Your task to perform on an android device: set the timer Image 0: 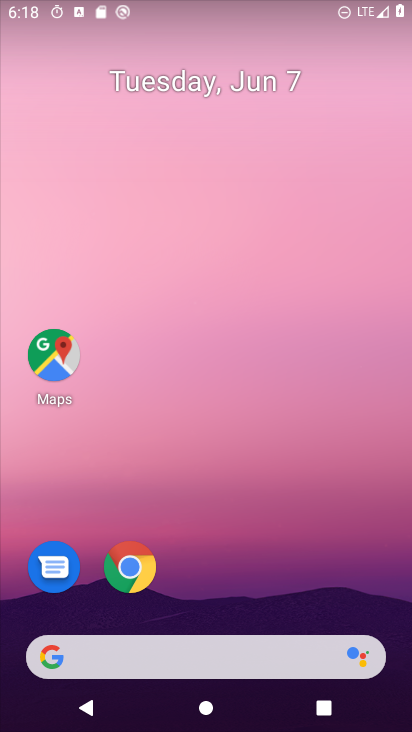
Step 0: drag from (296, 669) to (287, 14)
Your task to perform on an android device: set the timer Image 1: 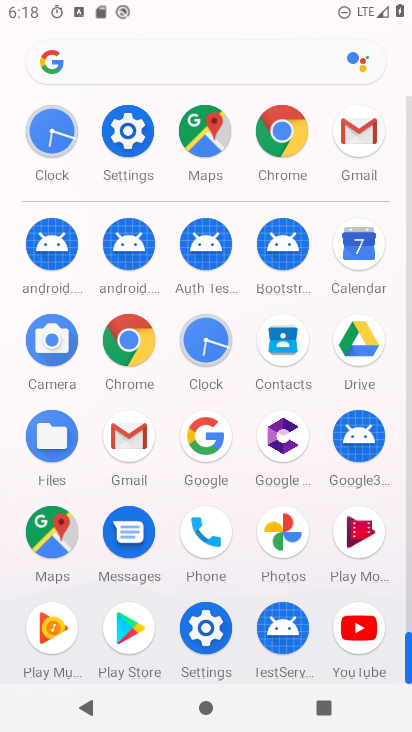
Step 1: click (201, 361)
Your task to perform on an android device: set the timer Image 2: 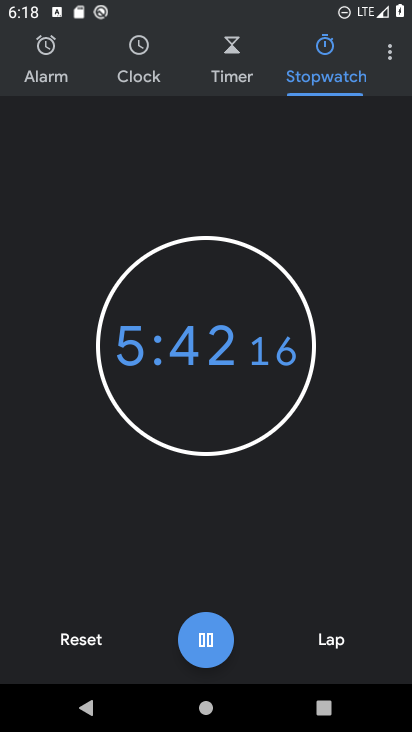
Step 2: click (236, 48)
Your task to perform on an android device: set the timer Image 3: 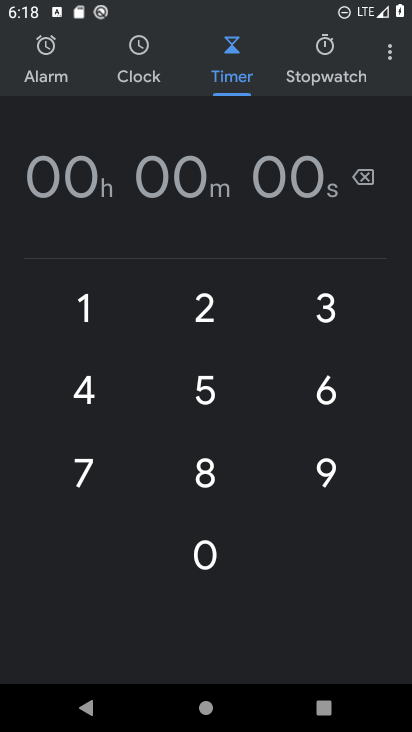
Step 3: task complete